Your task to perform on an android device: turn on airplane mode Image 0: 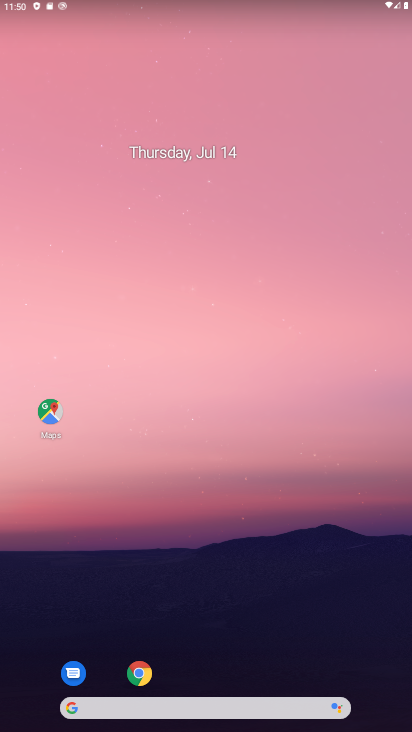
Step 0: drag from (326, 645) to (239, 84)
Your task to perform on an android device: turn on airplane mode Image 1: 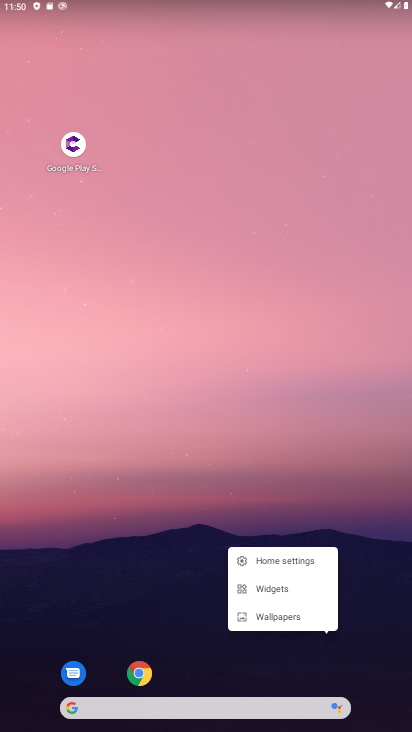
Step 1: drag from (379, 654) to (273, 54)
Your task to perform on an android device: turn on airplane mode Image 2: 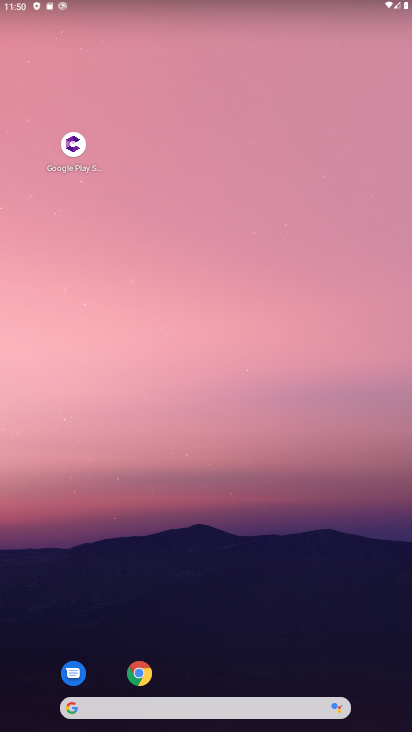
Step 2: drag from (385, 654) to (364, 106)
Your task to perform on an android device: turn on airplane mode Image 3: 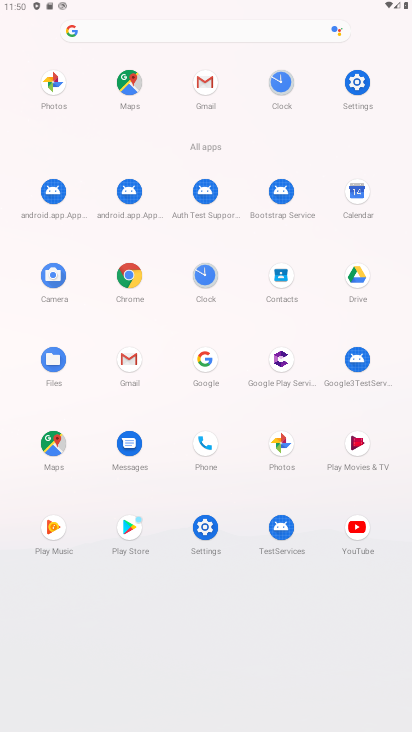
Step 3: click (360, 90)
Your task to perform on an android device: turn on airplane mode Image 4: 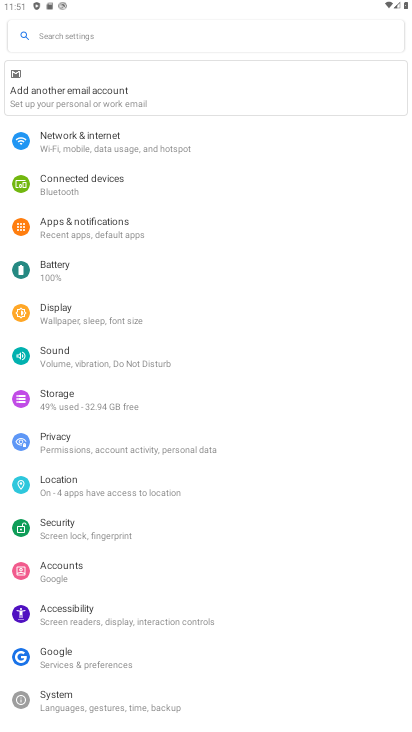
Step 4: click (189, 135)
Your task to perform on an android device: turn on airplane mode Image 5: 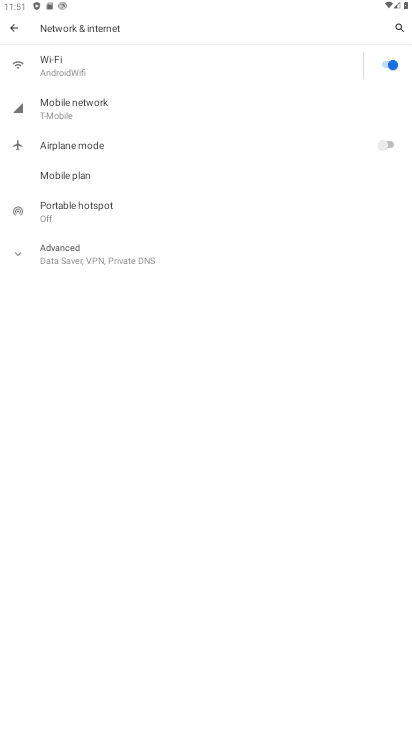
Step 5: click (396, 155)
Your task to perform on an android device: turn on airplane mode Image 6: 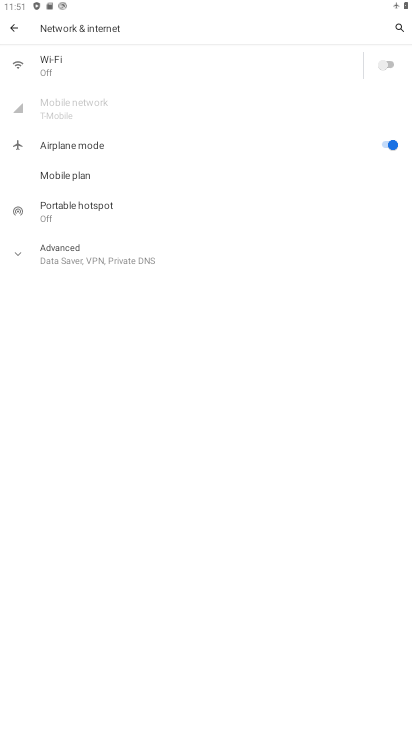
Step 6: task complete